Your task to perform on an android device: open a new tab in the chrome app Image 0: 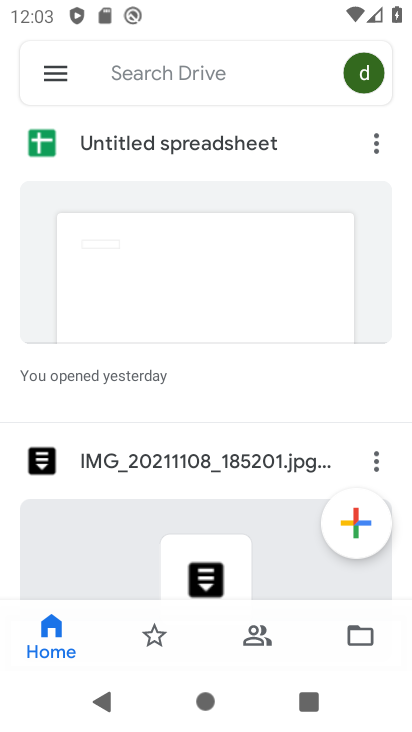
Step 0: press home button
Your task to perform on an android device: open a new tab in the chrome app Image 1: 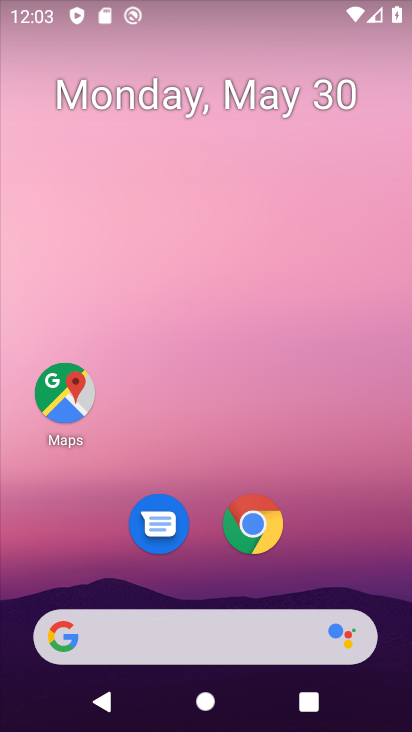
Step 1: click (252, 517)
Your task to perform on an android device: open a new tab in the chrome app Image 2: 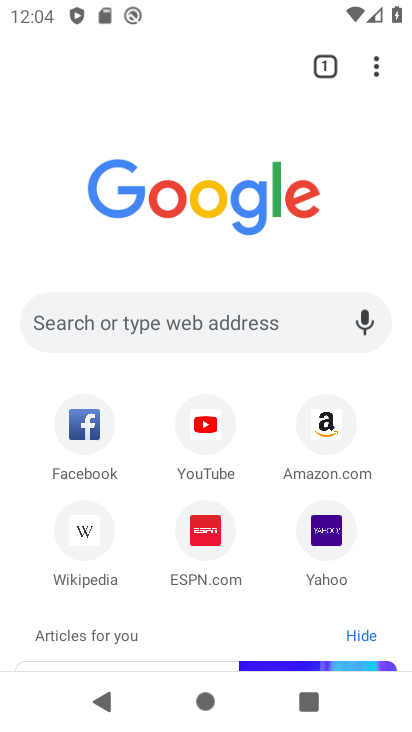
Step 2: click (369, 63)
Your task to perform on an android device: open a new tab in the chrome app Image 3: 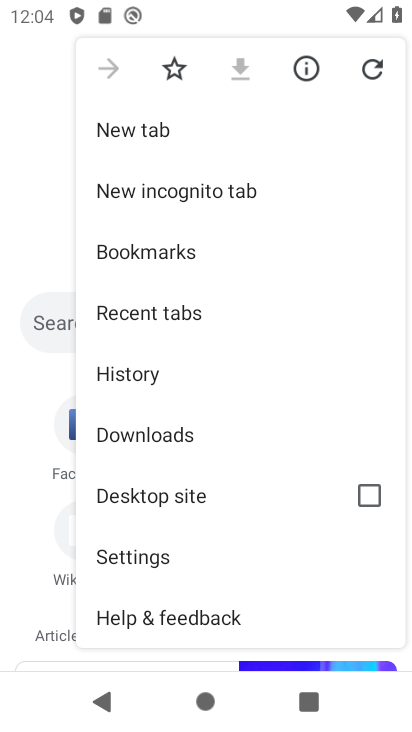
Step 3: click (297, 115)
Your task to perform on an android device: open a new tab in the chrome app Image 4: 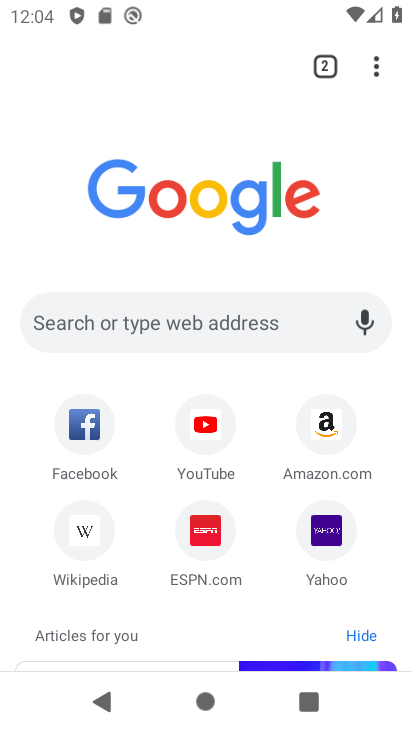
Step 4: task complete